Your task to perform on an android device: Search for vegetarian restaurants on Maps Image 0: 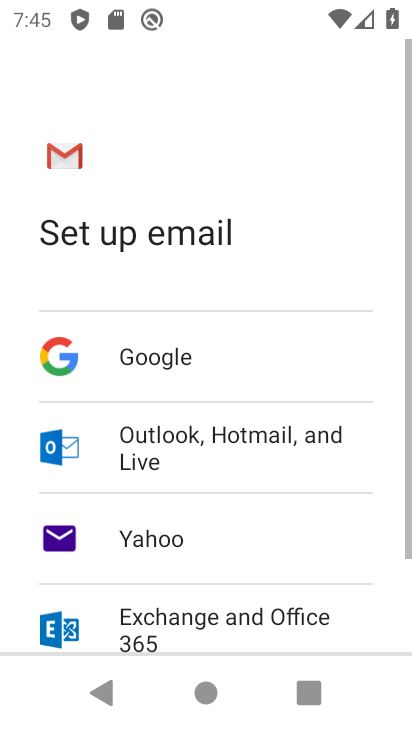
Step 0: press back button
Your task to perform on an android device: Search for vegetarian restaurants on Maps Image 1: 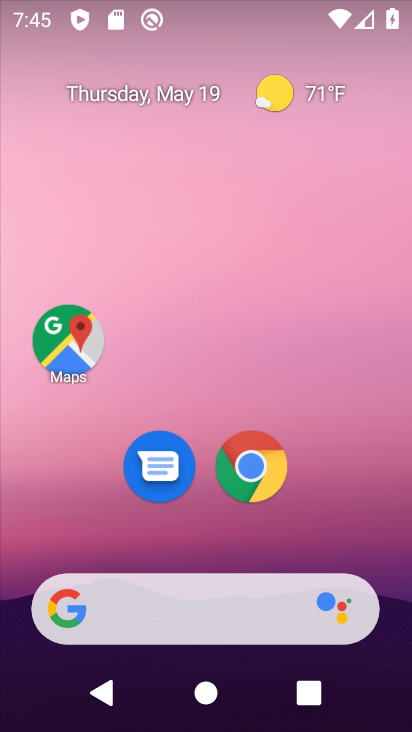
Step 1: drag from (320, 464) to (252, 9)
Your task to perform on an android device: Search for vegetarian restaurants on Maps Image 2: 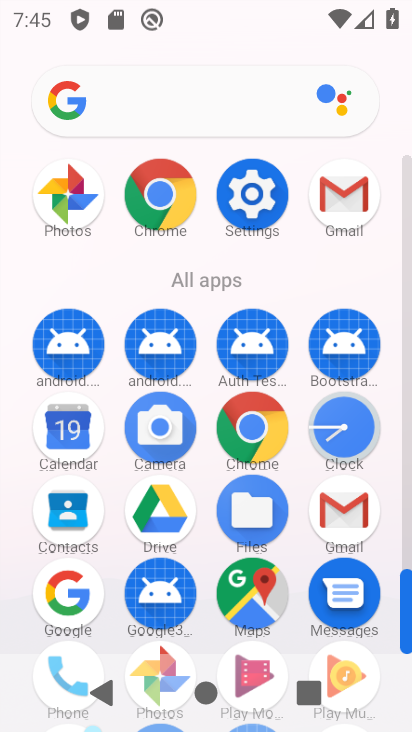
Step 2: click (251, 589)
Your task to perform on an android device: Search for vegetarian restaurants on Maps Image 3: 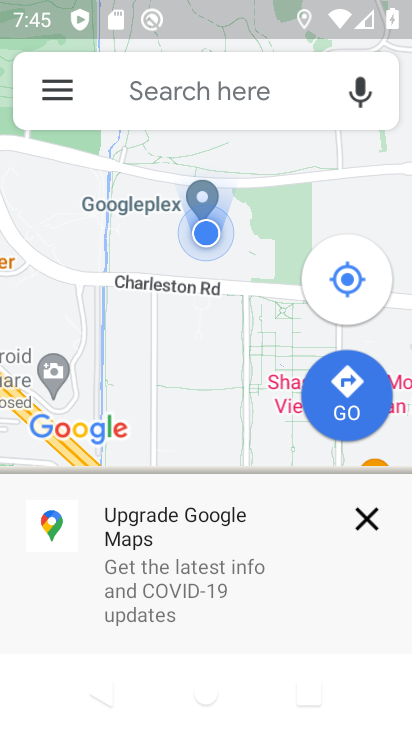
Step 3: click (243, 81)
Your task to perform on an android device: Search for vegetarian restaurants on Maps Image 4: 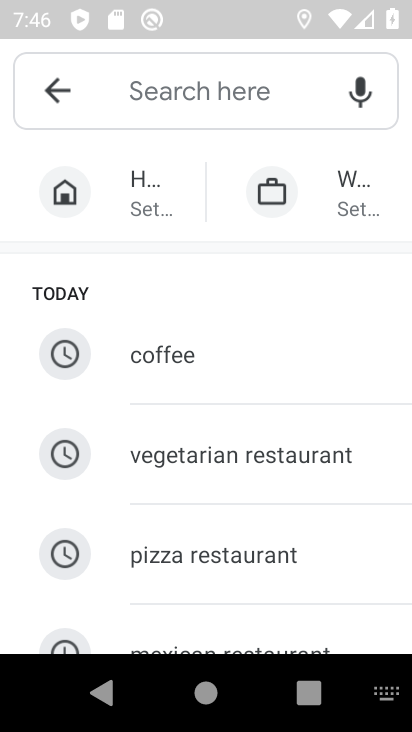
Step 4: click (274, 464)
Your task to perform on an android device: Search for vegetarian restaurants on Maps Image 5: 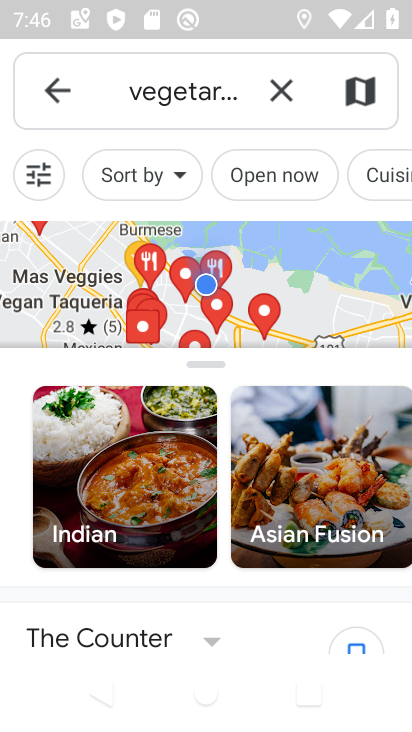
Step 5: task complete